Your task to perform on an android device: turn off notifications settings in the gmail app Image 0: 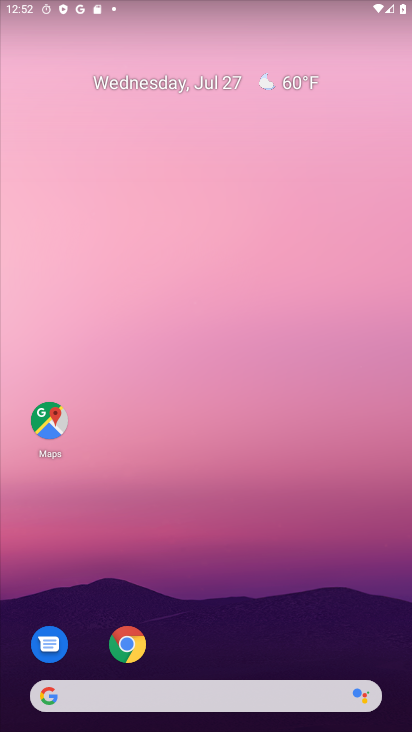
Step 0: drag from (209, 629) to (239, 264)
Your task to perform on an android device: turn off notifications settings in the gmail app Image 1: 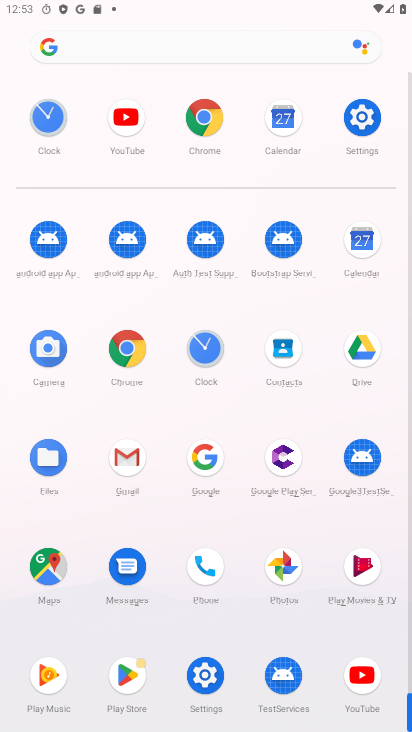
Step 1: click (125, 460)
Your task to perform on an android device: turn off notifications settings in the gmail app Image 2: 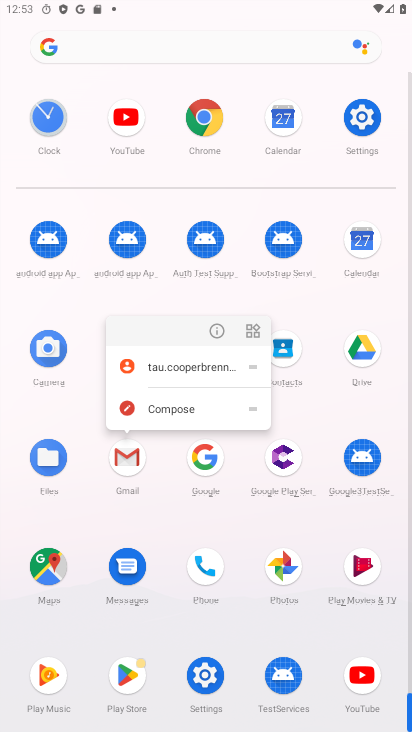
Step 2: click (216, 333)
Your task to perform on an android device: turn off notifications settings in the gmail app Image 3: 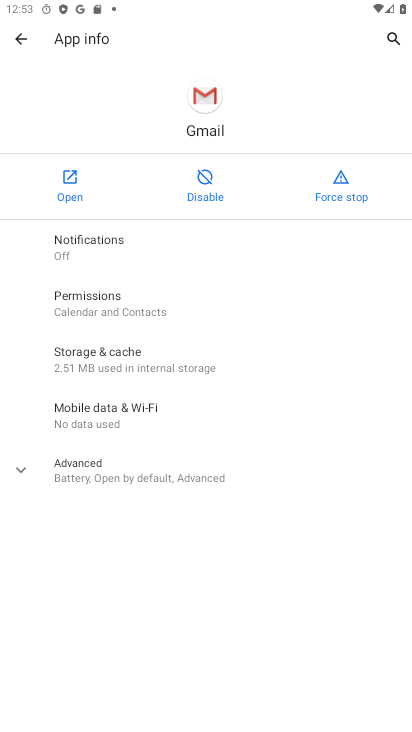
Step 3: click (78, 186)
Your task to perform on an android device: turn off notifications settings in the gmail app Image 4: 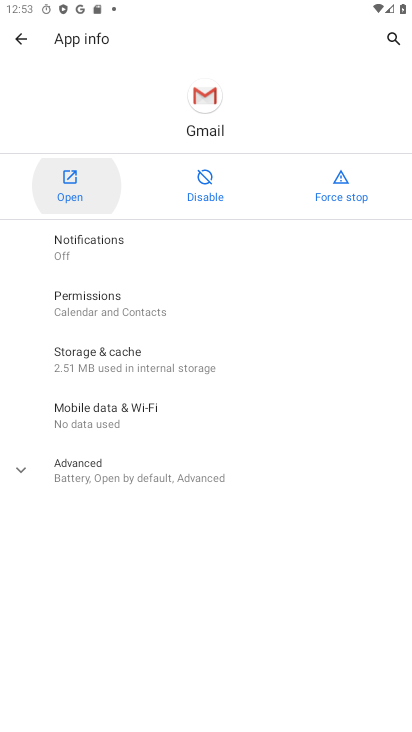
Step 4: click (78, 186)
Your task to perform on an android device: turn off notifications settings in the gmail app Image 5: 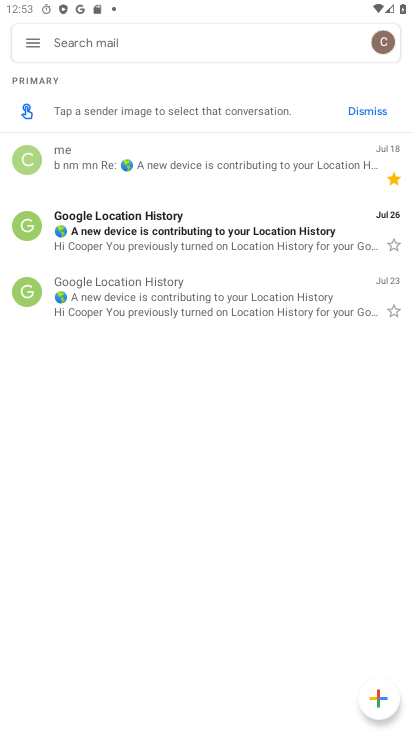
Step 5: click (27, 44)
Your task to perform on an android device: turn off notifications settings in the gmail app Image 6: 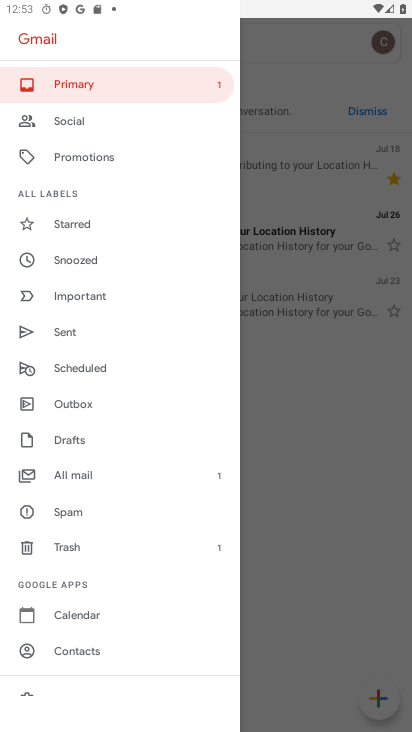
Step 6: drag from (103, 611) to (193, 133)
Your task to perform on an android device: turn off notifications settings in the gmail app Image 7: 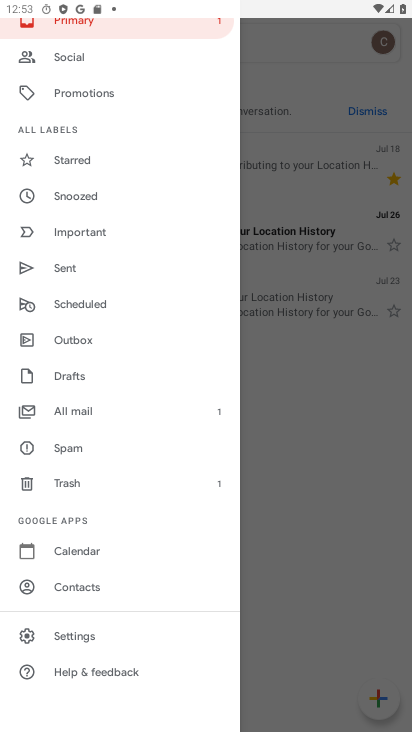
Step 7: click (60, 632)
Your task to perform on an android device: turn off notifications settings in the gmail app Image 8: 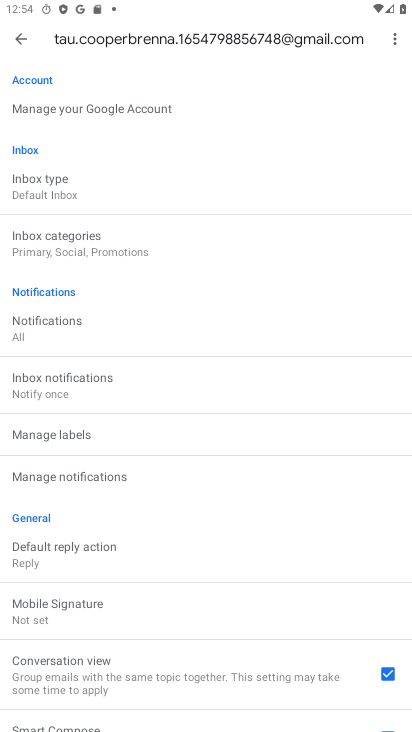
Step 8: click (96, 479)
Your task to perform on an android device: turn off notifications settings in the gmail app Image 9: 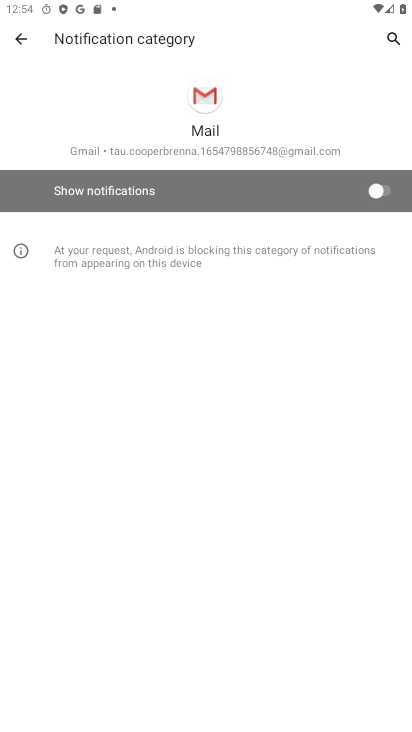
Step 9: task complete